Your task to perform on an android device: Open notification settings Image 0: 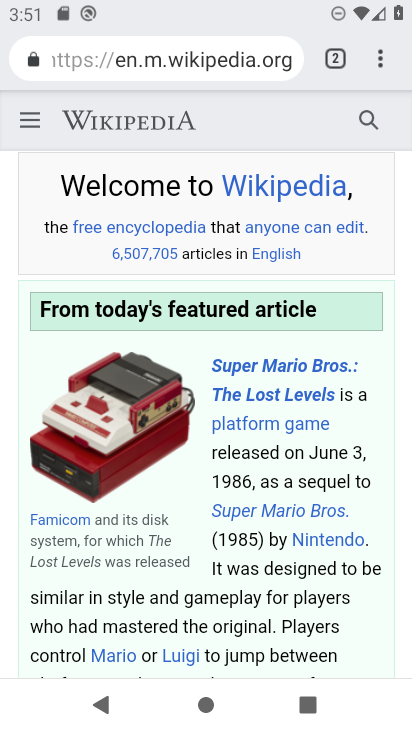
Step 0: press home button
Your task to perform on an android device: Open notification settings Image 1: 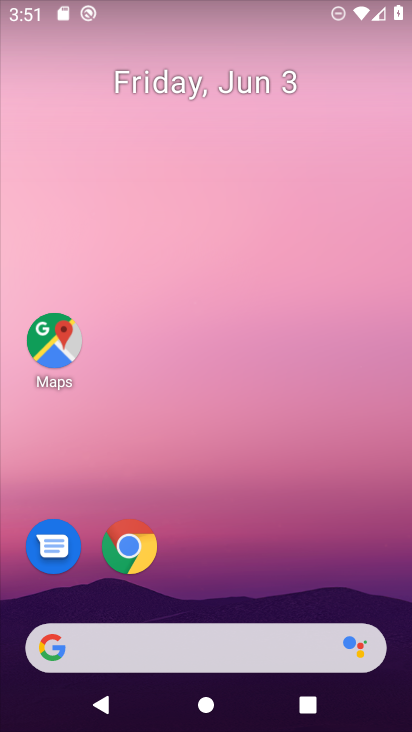
Step 1: drag from (248, 478) to (237, 16)
Your task to perform on an android device: Open notification settings Image 2: 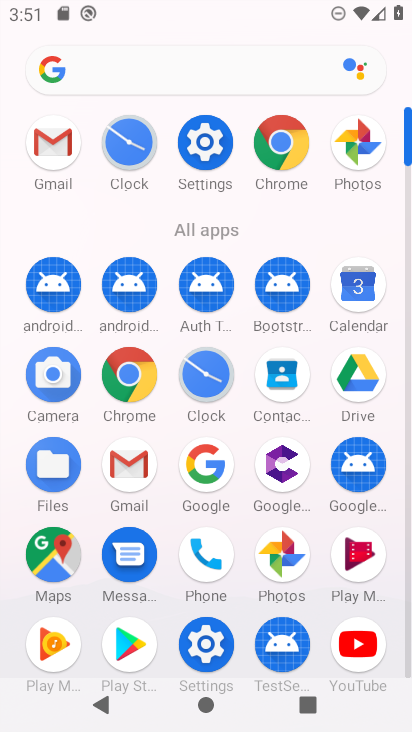
Step 2: click (207, 154)
Your task to perform on an android device: Open notification settings Image 3: 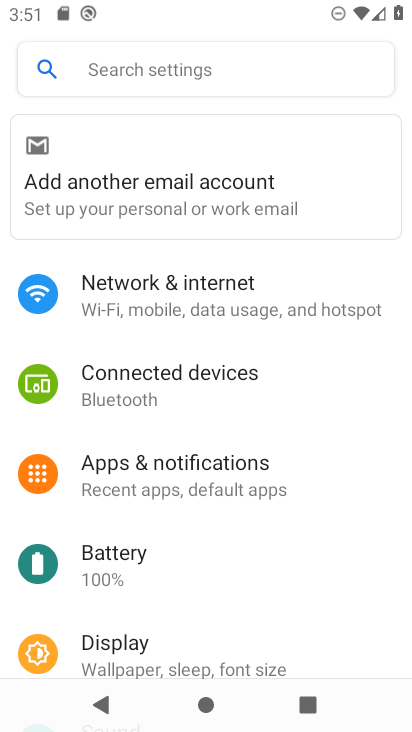
Step 3: click (200, 462)
Your task to perform on an android device: Open notification settings Image 4: 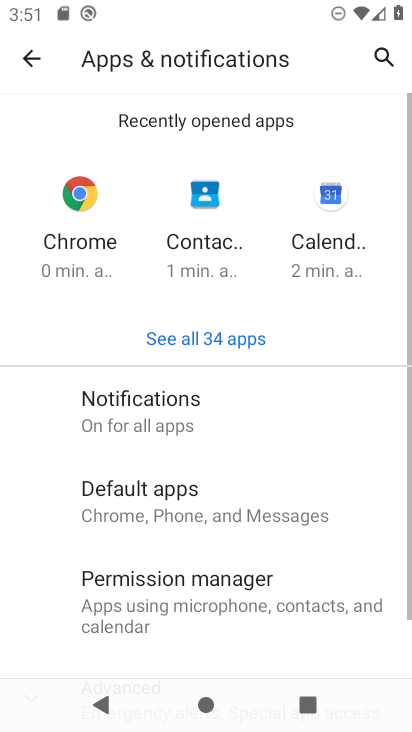
Step 4: click (200, 462)
Your task to perform on an android device: Open notification settings Image 5: 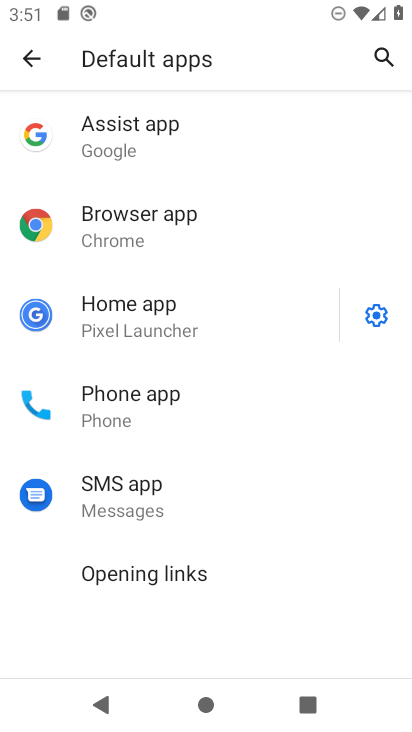
Step 5: click (28, 58)
Your task to perform on an android device: Open notification settings Image 6: 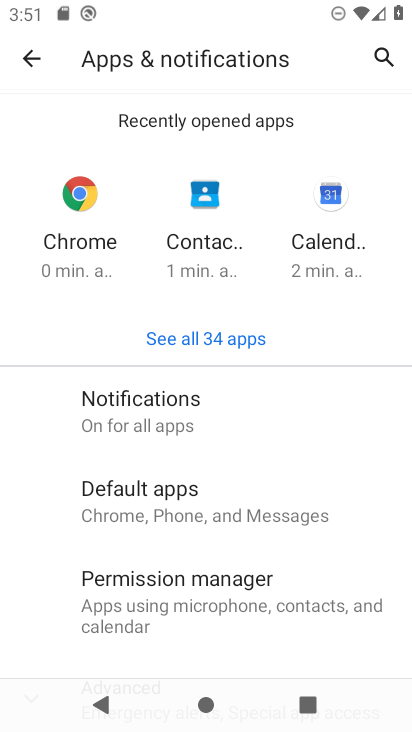
Step 6: click (165, 409)
Your task to perform on an android device: Open notification settings Image 7: 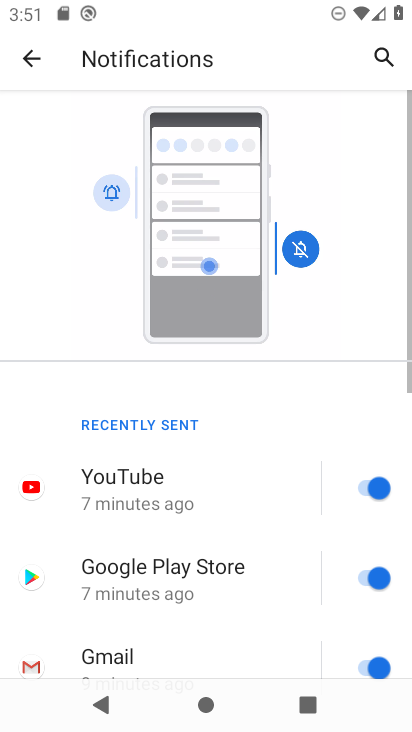
Step 7: task complete